Your task to perform on an android device: When is my next appointment? Image 0: 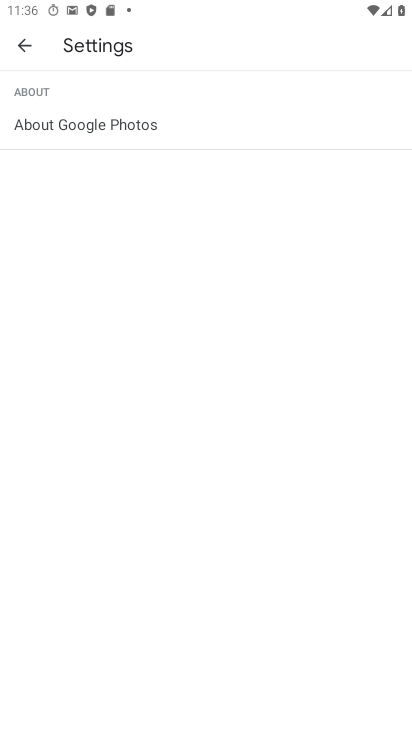
Step 0: task impossible